Your task to perform on an android device: Play the last video I watched on Youtube Image 0: 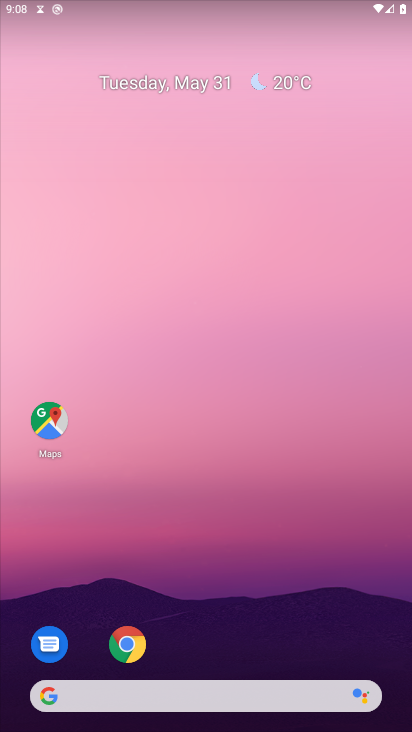
Step 0: drag from (216, 654) to (230, 39)
Your task to perform on an android device: Play the last video I watched on Youtube Image 1: 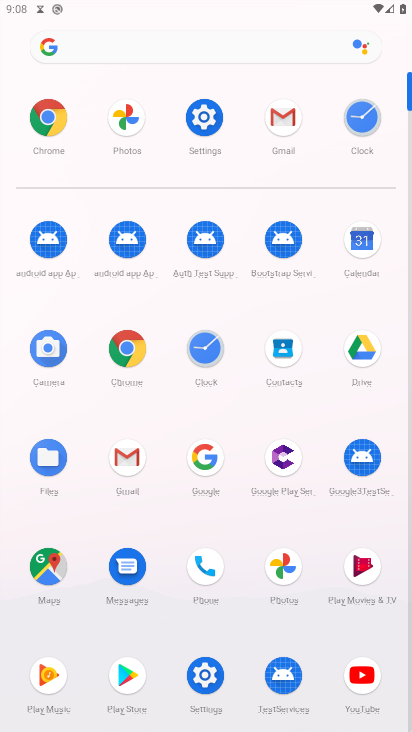
Step 1: click (360, 663)
Your task to perform on an android device: Play the last video I watched on Youtube Image 2: 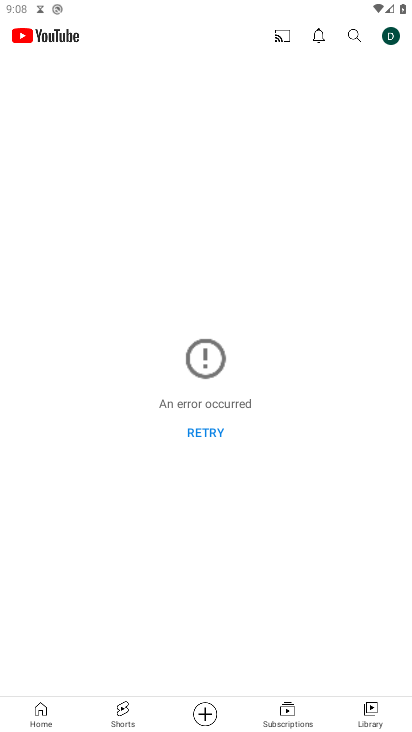
Step 2: click (363, 701)
Your task to perform on an android device: Play the last video I watched on Youtube Image 3: 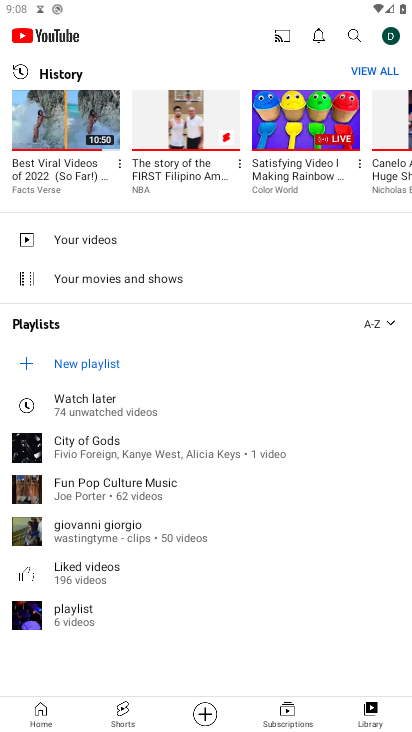
Step 3: click (72, 118)
Your task to perform on an android device: Play the last video I watched on Youtube Image 4: 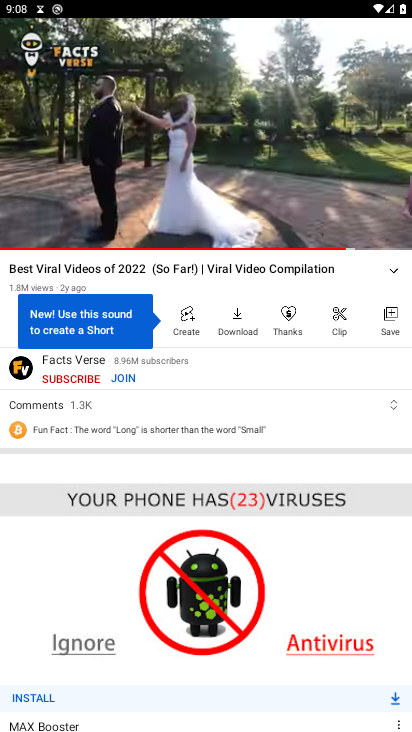
Step 4: task complete